Your task to perform on an android device: Open location settings Image 0: 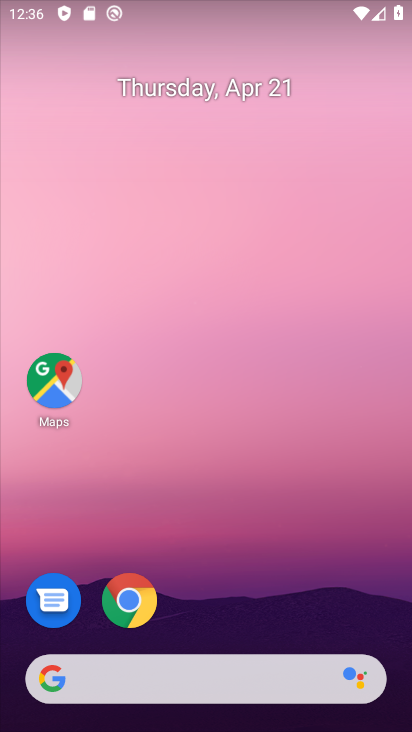
Step 0: drag from (388, 618) to (332, 154)
Your task to perform on an android device: Open location settings Image 1: 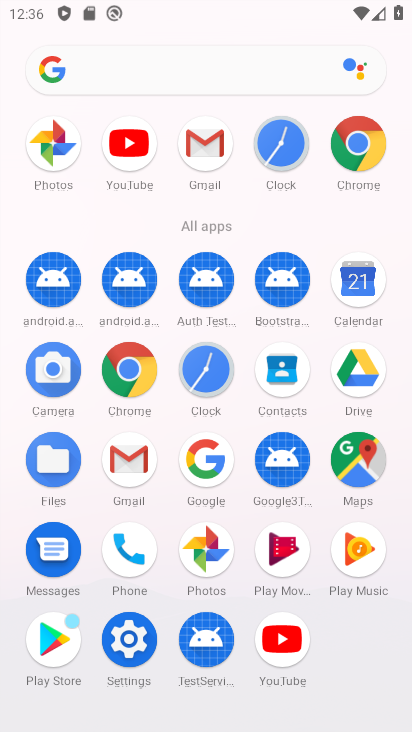
Step 1: click (125, 634)
Your task to perform on an android device: Open location settings Image 2: 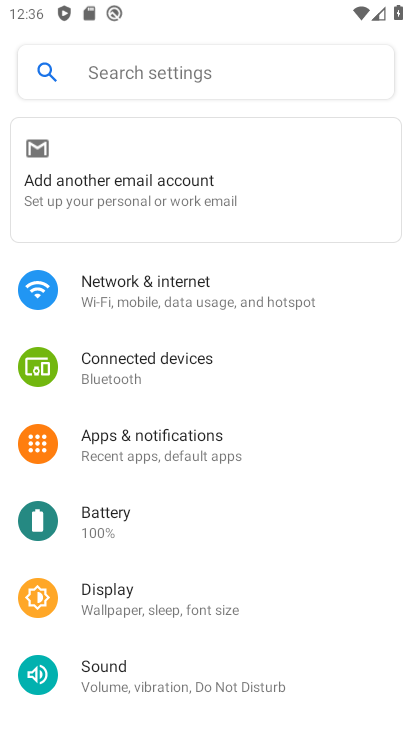
Step 2: drag from (260, 631) to (242, 263)
Your task to perform on an android device: Open location settings Image 3: 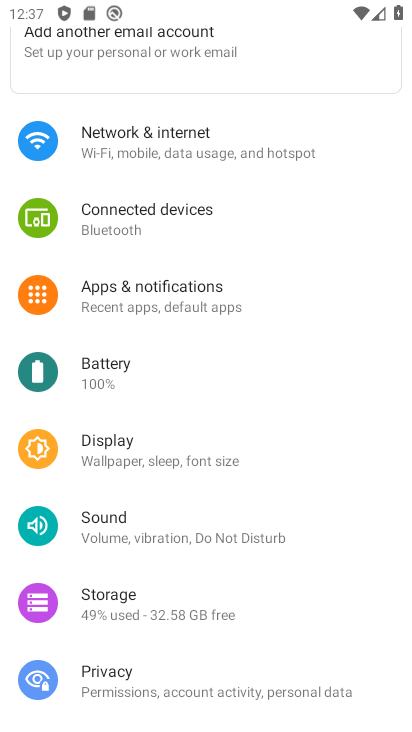
Step 3: drag from (170, 647) to (251, 235)
Your task to perform on an android device: Open location settings Image 4: 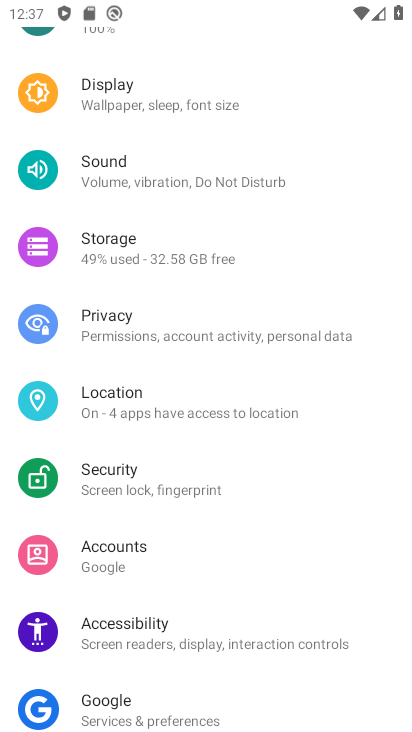
Step 4: click (139, 408)
Your task to perform on an android device: Open location settings Image 5: 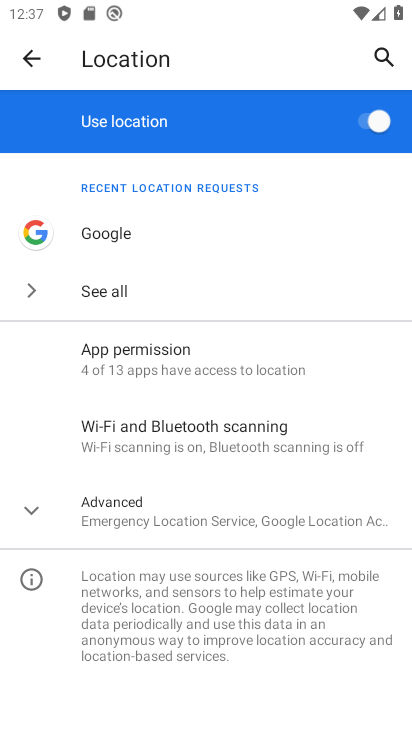
Step 5: click (41, 499)
Your task to perform on an android device: Open location settings Image 6: 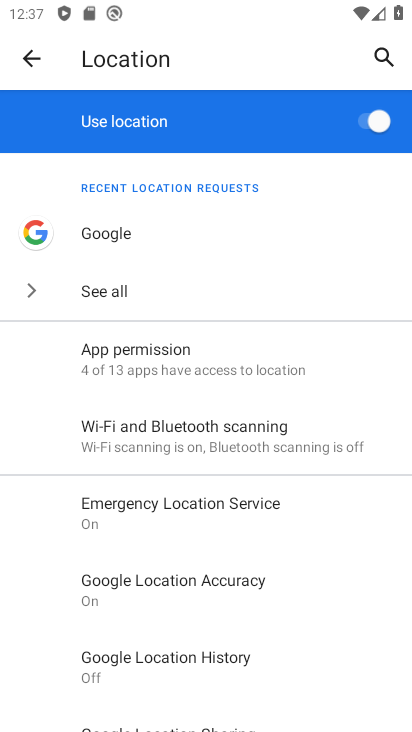
Step 6: task complete